Your task to perform on an android device: Open the map Image 0: 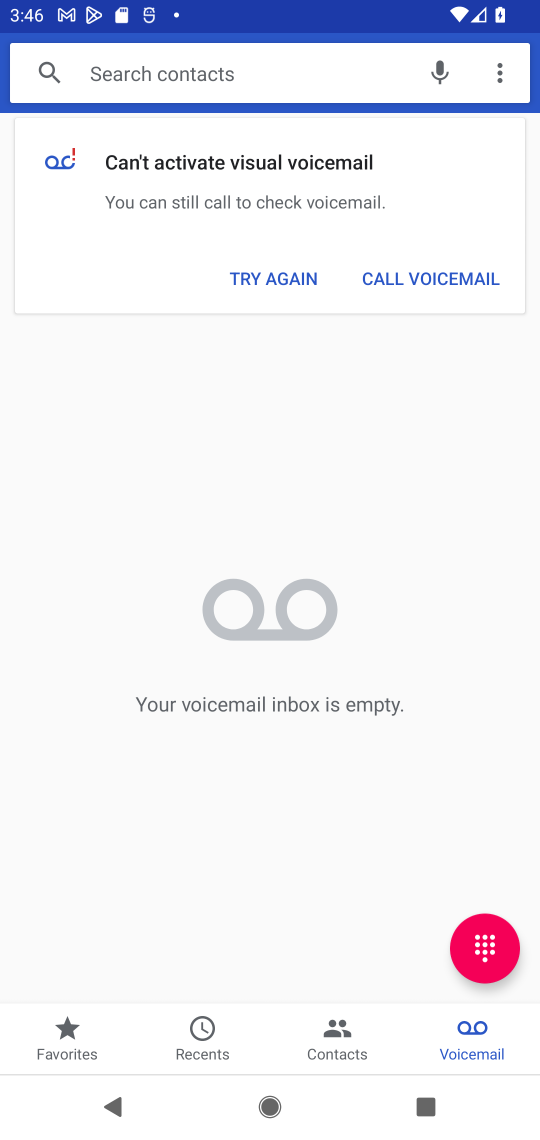
Step 0: press home button
Your task to perform on an android device: Open the map Image 1: 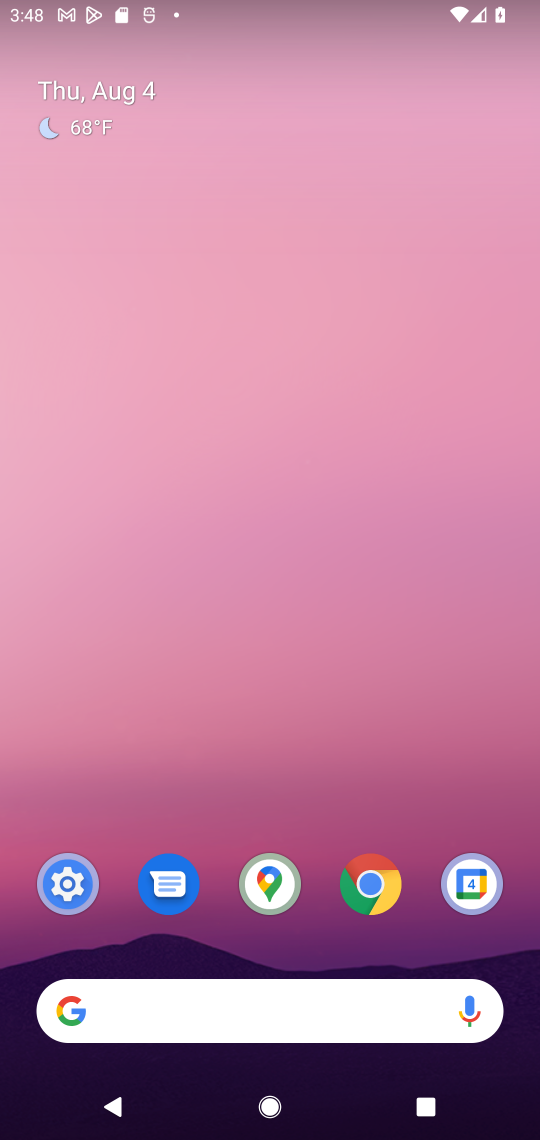
Step 1: click (270, 884)
Your task to perform on an android device: Open the map Image 2: 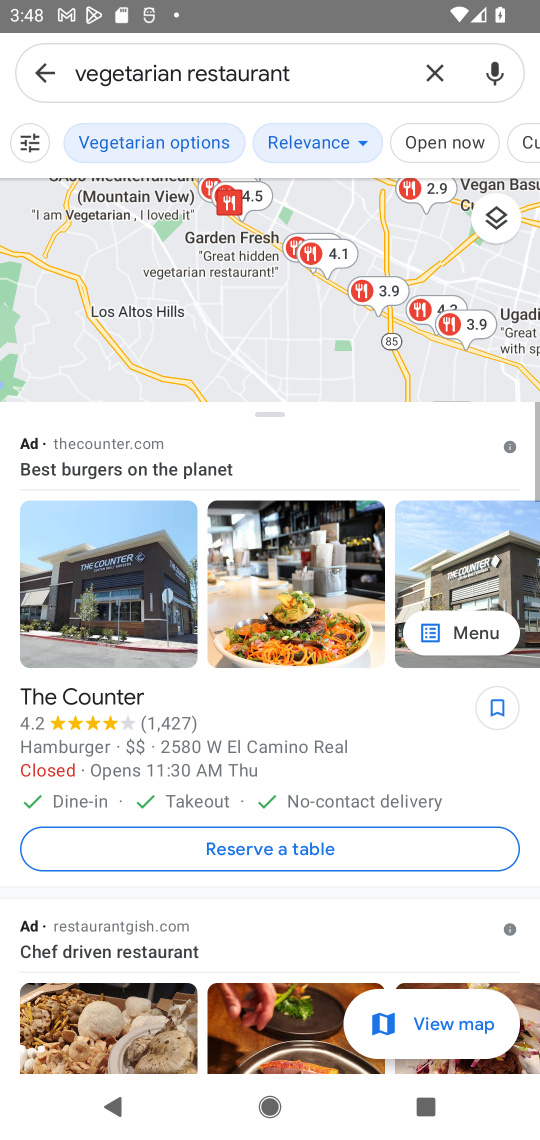
Step 2: task complete